Your task to perform on an android device: turn on notifications settings in the gmail app Image 0: 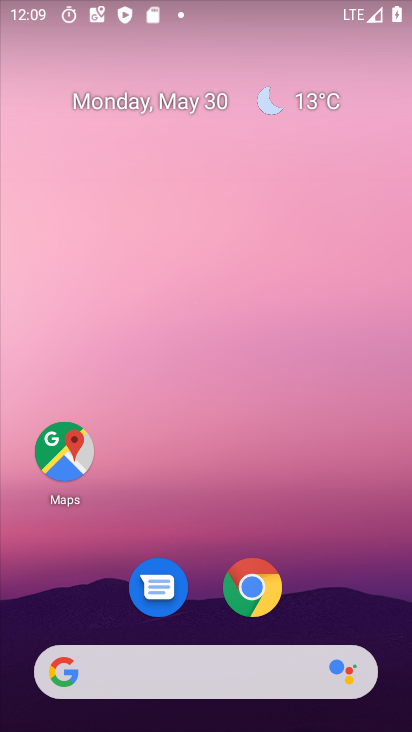
Step 0: drag from (315, 624) to (168, 42)
Your task to perform on an android device: turn on notifications settings in the gmail app Image 1: 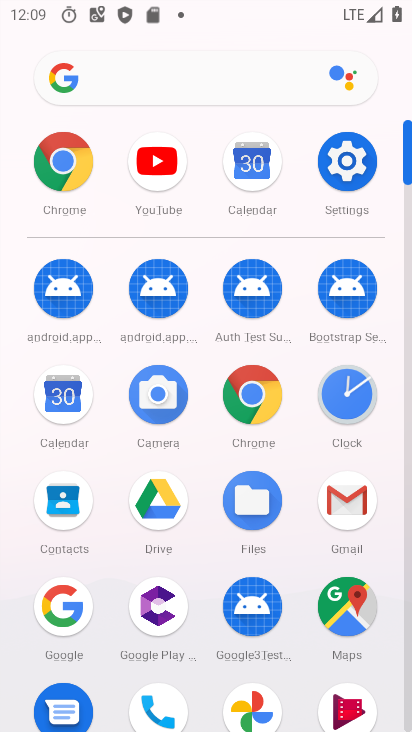
Step 1: click (348, 494)
Your task to perform on an android device: turn on notifications settings in the gmail app Image 2: 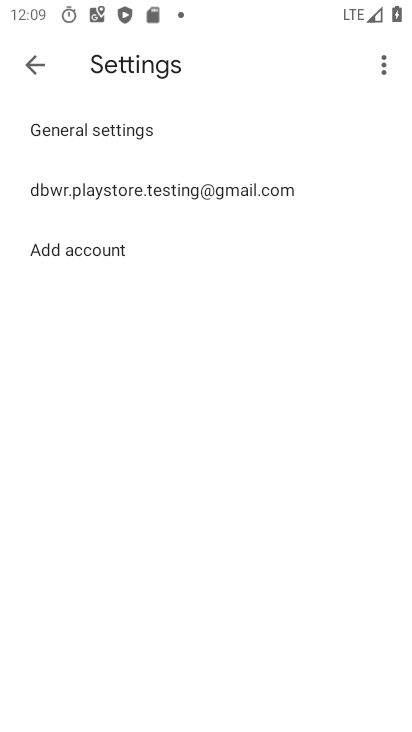
Step 2: click (41, 71)
Your task to perform on an android device: turn on notifications settings in the gmail app Image 3: 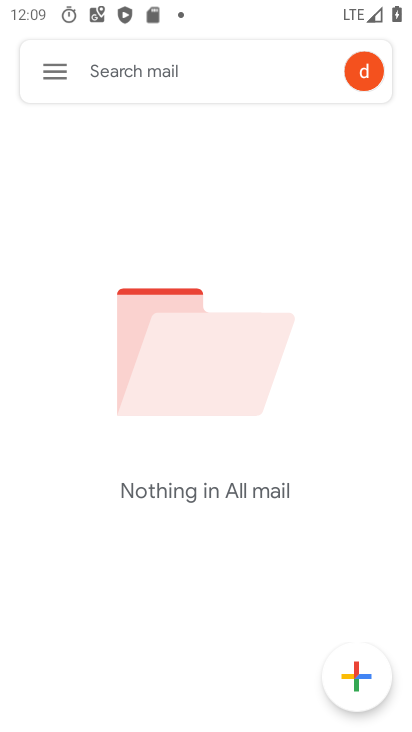
Step 3: click (38, 65)
Your task to perform on an android device: turn on notifications settings in the gmail app Image 4: 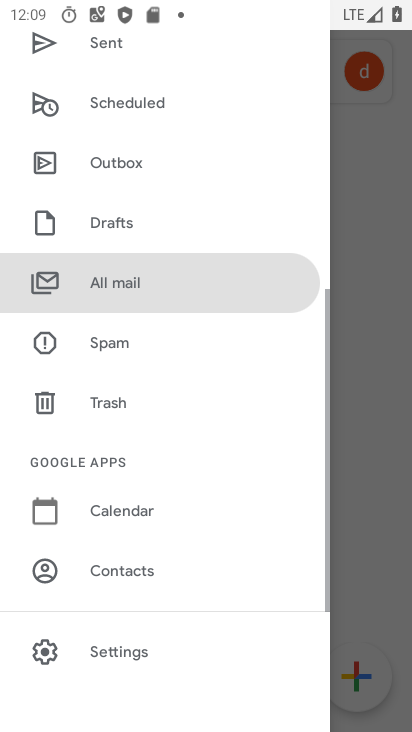
Step 4: drag from (95, 642) to (166, 102)
Your task to perform on an android device: turn on notifications settings in the gmail app Image 5: 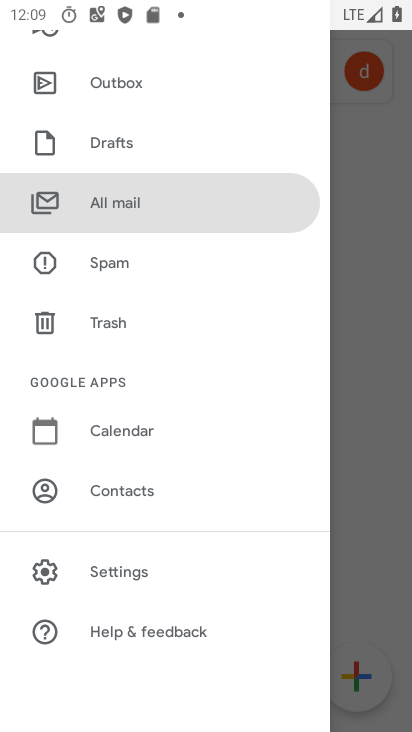
Step 5: click (119, 570)
Your task to perform on an android device: turn on notifications settings in the gmail app Image 6: 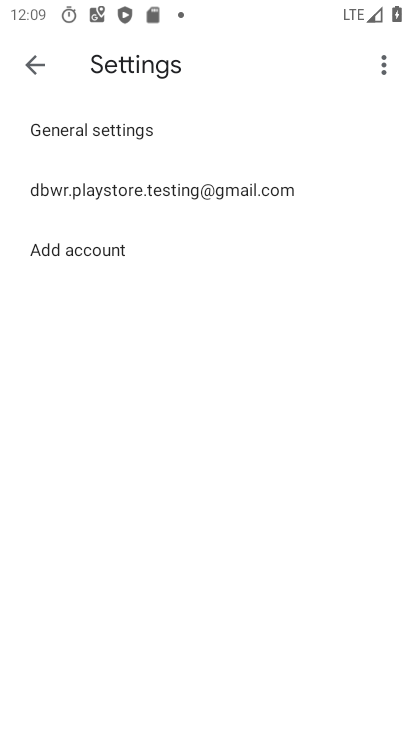
Step 6: click (253, 187)
Your task to perform on an android device: turn on notifications settings in the gmail app Image 7: 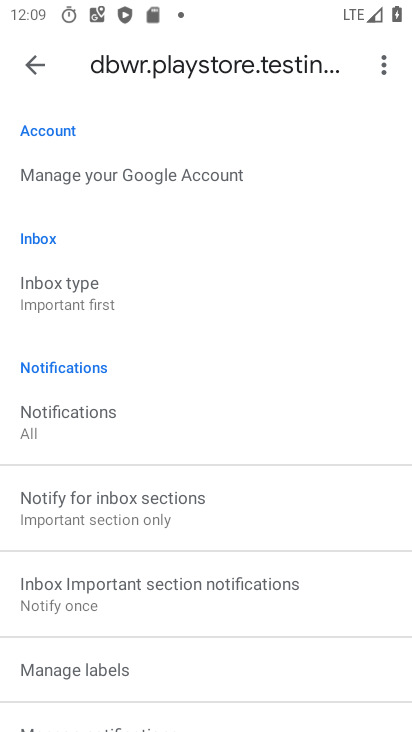
Step 7: drag from (196, 512) to (263, 185)
Your task to perform on an android device: turn on notifications settings in the gmail app Image 8: 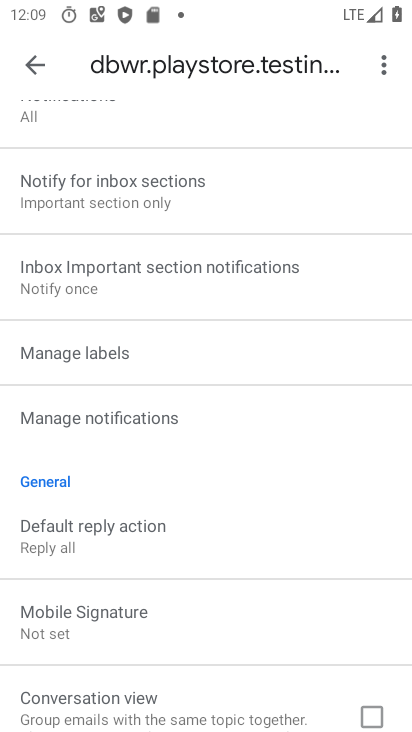
Step 8: click (124, 419)
Your task to perform on an android device: turn on notifications settings in the gmail app Image 9: 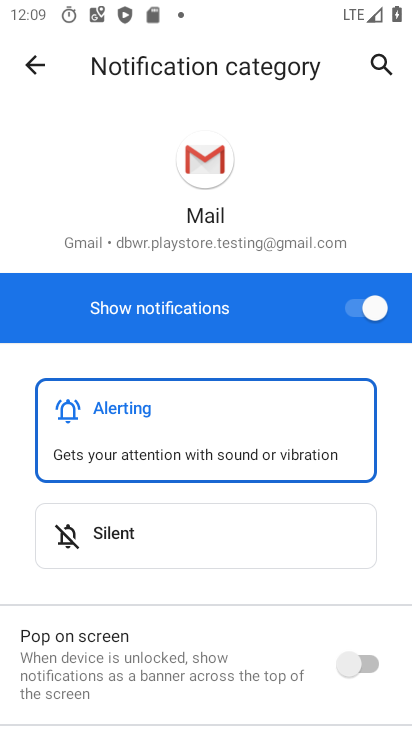
Step 9: drag from (250, 527) to (345, 14)
Your task to perform on an android device: turn on notifications settings in the gmail app Image 10: 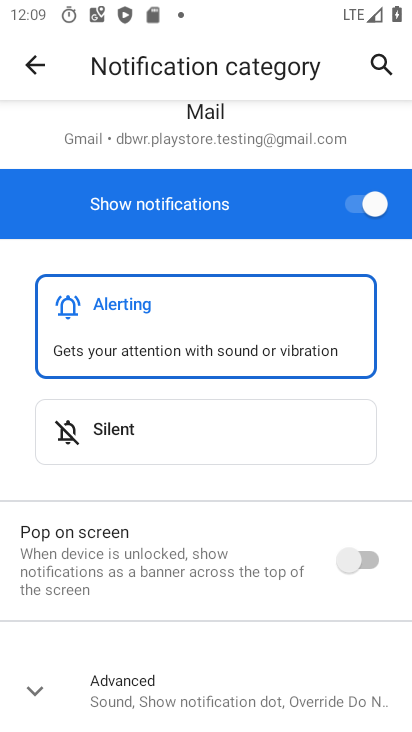
Step 10: press home button
Your task to perform on an android device: turn on notifications settings in the gmail app Image 11: 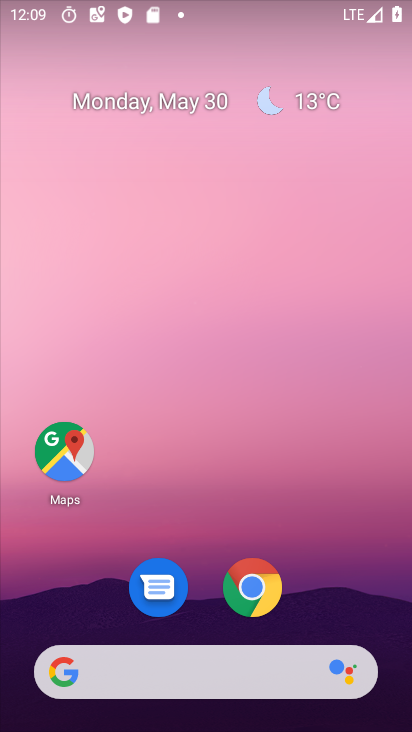
Step 11: drag from (325, 469) to (309, 15)
Your task to perform on an android device: turn on notifications settings in the gmail app Image 12: 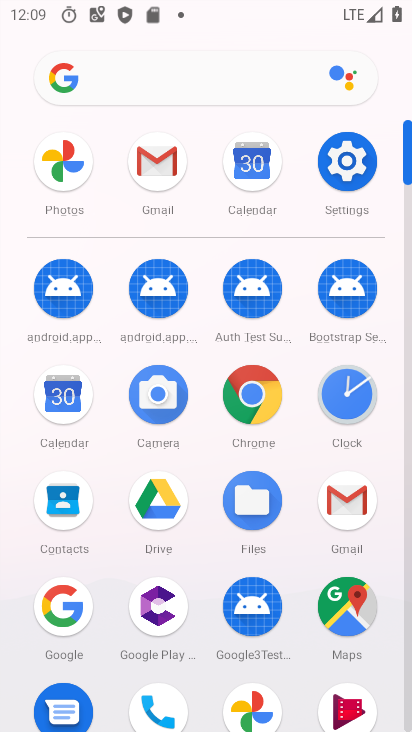
Step 12: click (153, 170)
Your task to perform on an android device: turn on notifications settings in the gmail app Image 13: 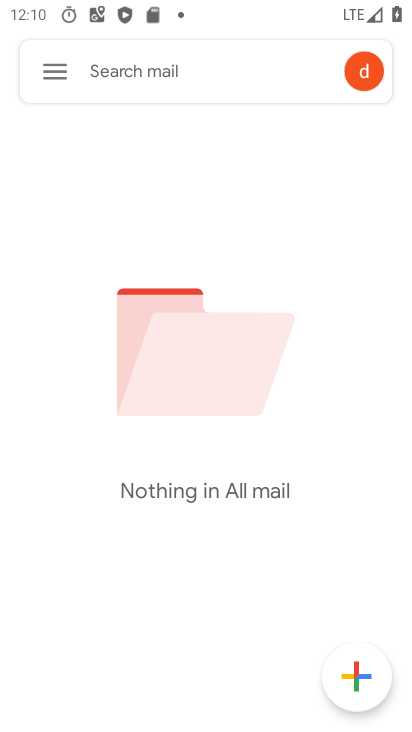
Step 13: click (48, 67)
Your task to perform on an android device: turn on notifications settings in the gmail app Image 14: 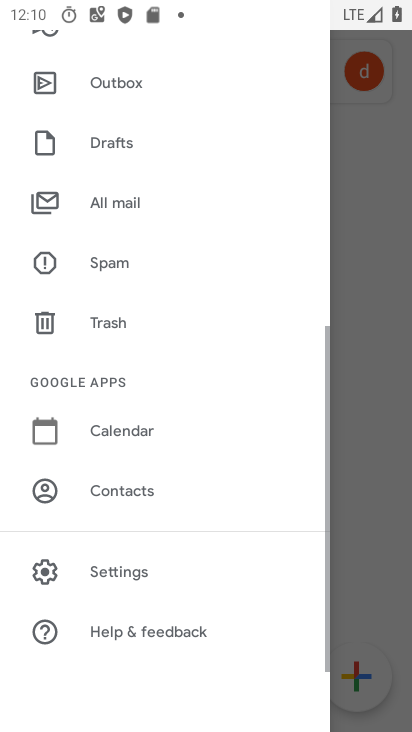
Step 14: click (149, 578)
Your task to perform on an android device: turn on notifications settings in the gmail app Image 15: 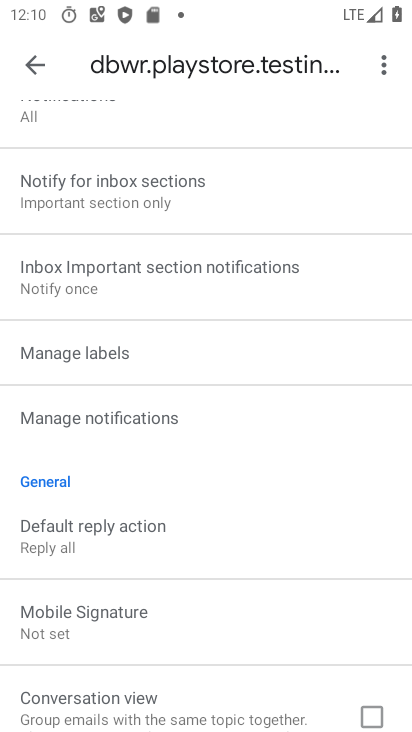
Step 15: click (137, 424)
Your task to perform on an android device: turn on notifications settings in the gmail app Image 16: 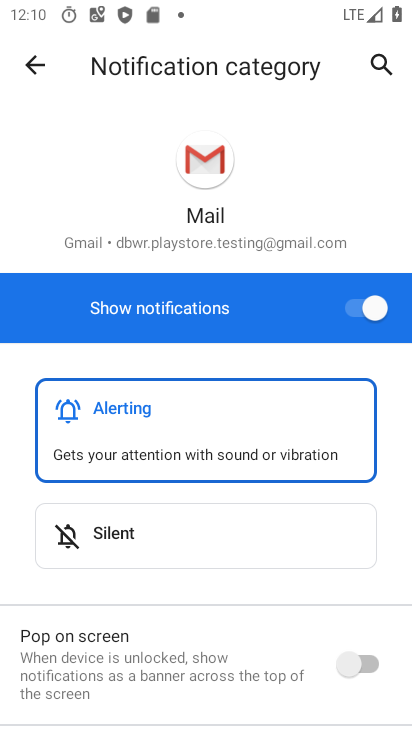
Step 16: task complete